Your task to perform on an android device: What's the weather going to be tomorrow? Image 0: 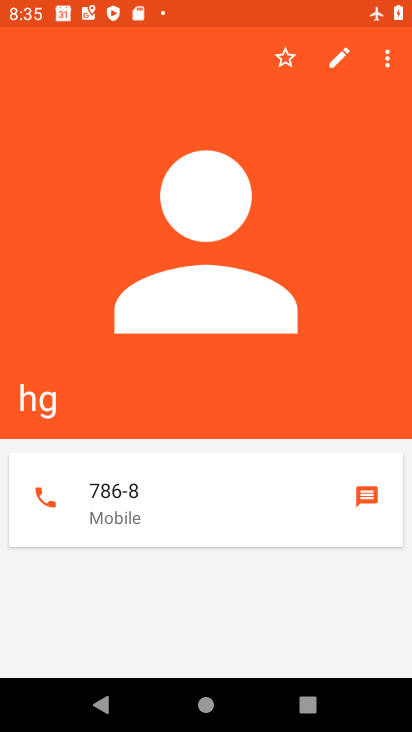
Step 0: press home button
Your task to perform on an android device: What's the weather going to be tomorrow? Image 1: 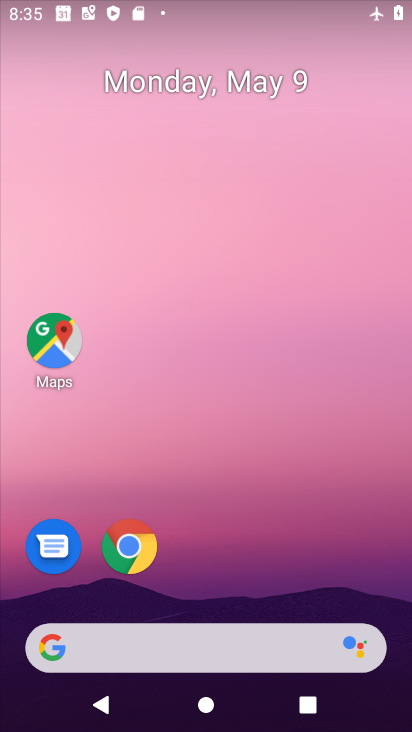
Step 1: click (201, 639)
Your task to perform on an android device: What's the weather going to be tomorrow? Image 2: 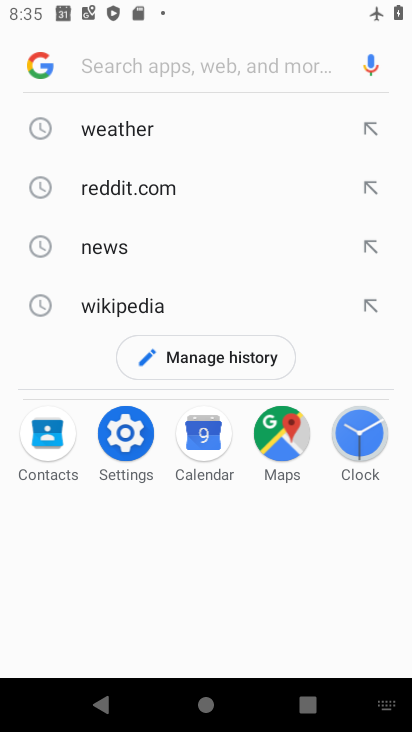
Step 2: type "What's the weather going to be tomorrow?"
Your task to perform on an android device: What's the weather going to be tomorrow? Image 3: 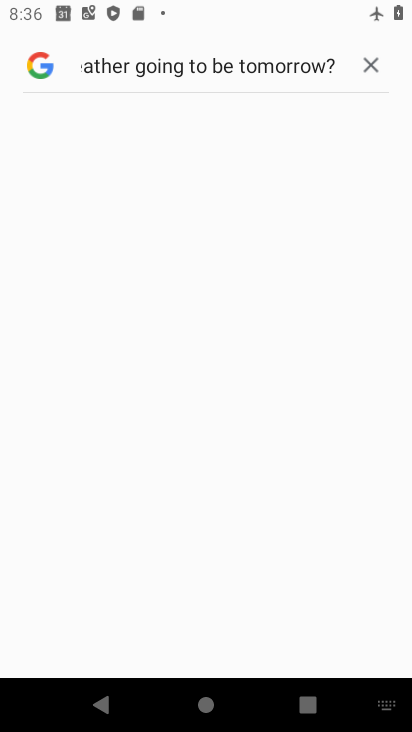
Step 3: task complete